Your task to perform on an android device: Do I have any events tomorrow? Image 0: 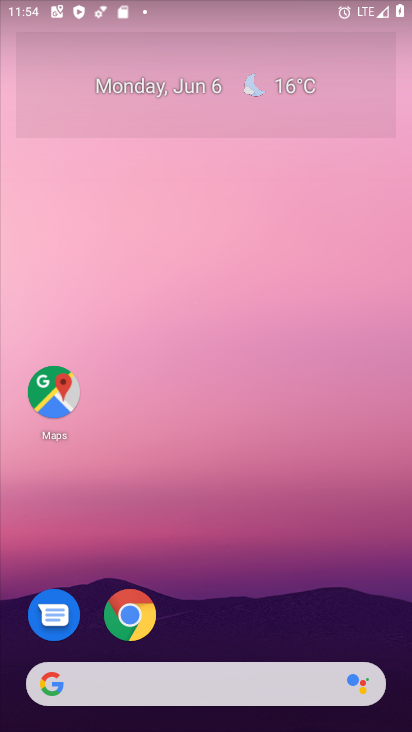
Step 0: drag from (218, 642) to (208, 6)
Your task to perform on an android device: Do I have any events tomorrow? Image 1: 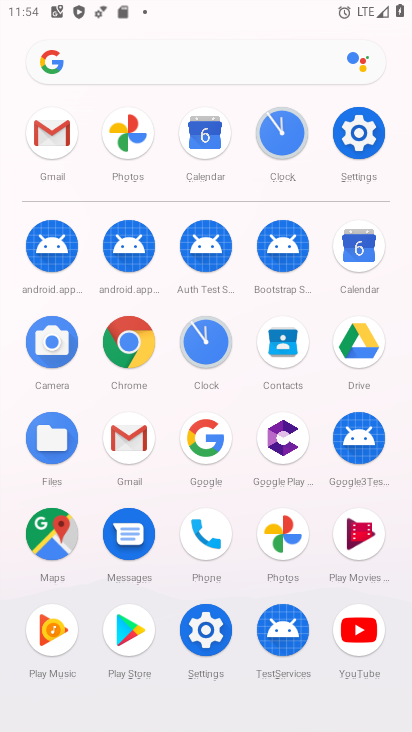
Step 1: click (356, 241)
Your task to perform on an android device: Do I have any events tomorrow? Image 2: 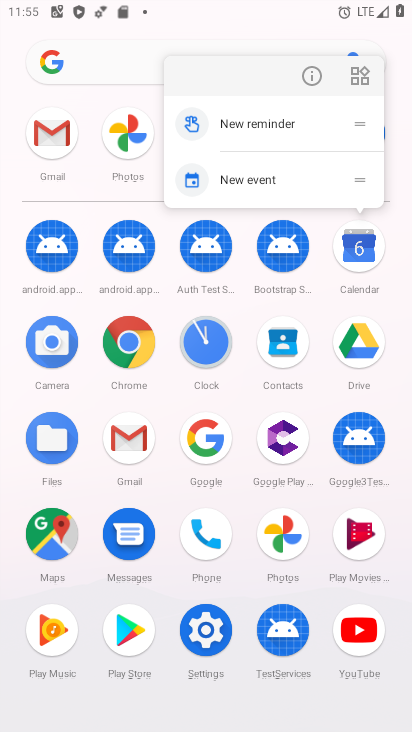
Step 2: click (356, 241)
Your task to perform on an android device: Do I have any events tomorrow? Image 3: 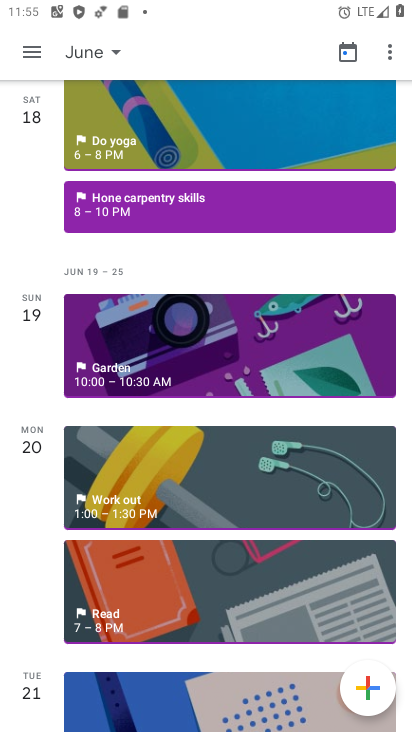
Step 3: drag from (42, 134) to (0, 580)
Your task to perform on an android device: Do I have any events tomorrow? Image 4: 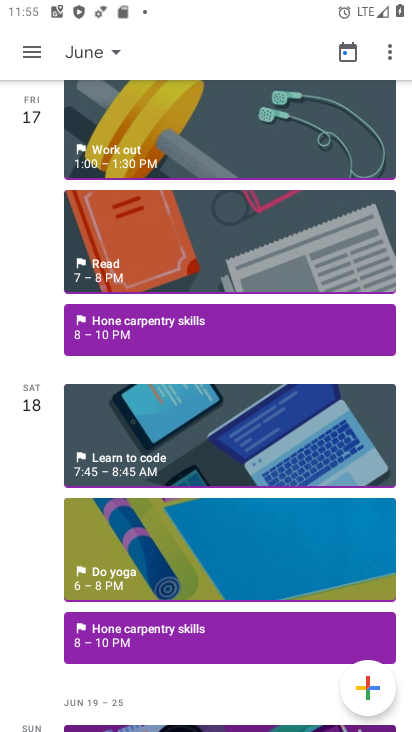
Step 4: click (108, 46)
Your task to perform on an android device: Do I have any events tomorrow? Image 5: 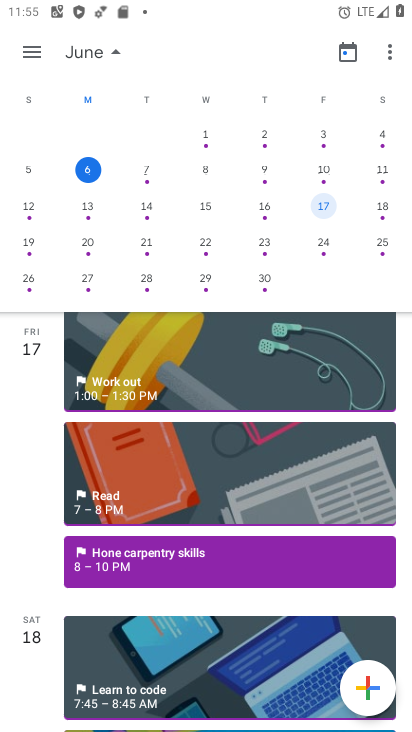
Step 5: click (147, 165)
Your task to perform on an android device: Do I have any events tomorrow? Image 6: 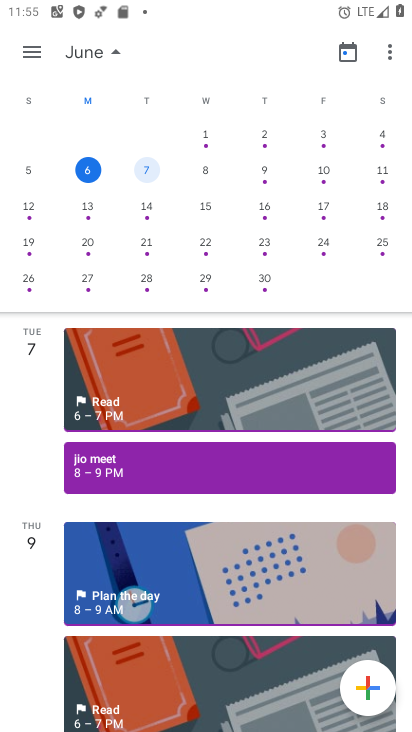
Step 6: click (107, 50)
Your task to perform on an android device: Do I have any events tomorrow? Image 7: 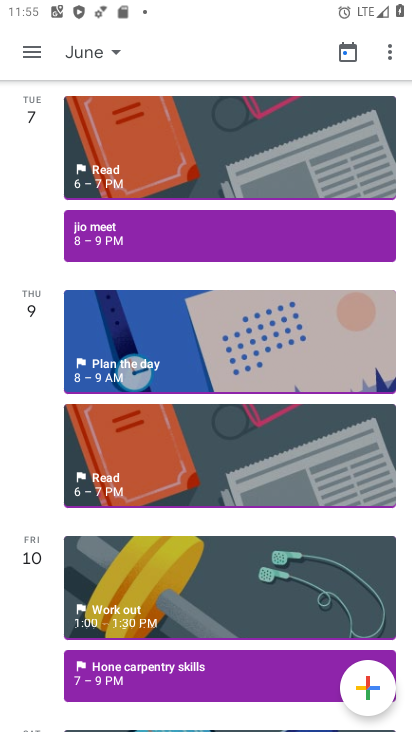
Step 7: click (36, 120)
Your task to perform on an android device: Do I have any events tomorrow? Image 8: 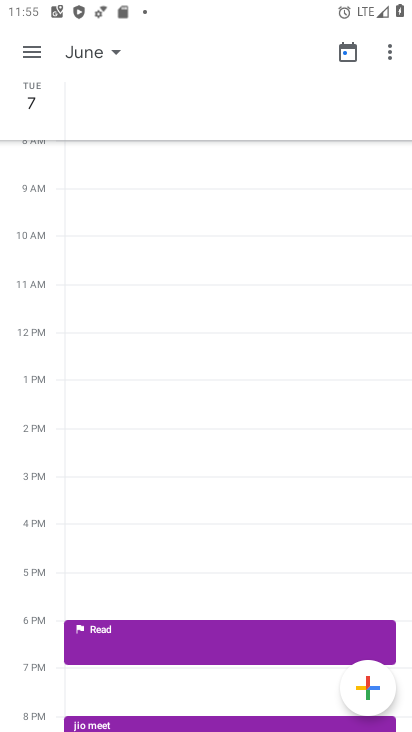
Step 8: task complete